Your task to perform on an android device: Open calendar and show me the fourth week of next month Image 0: 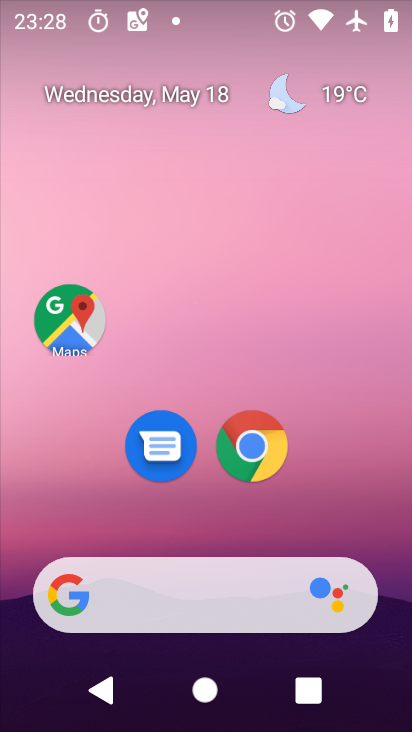
Step 0: press home button
Your task to perform on an android device: Open calendar and show me the fourth week of next month Image 1: 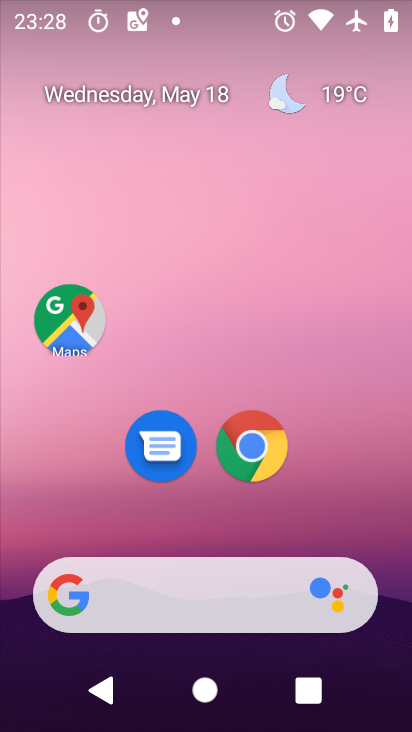
Step 1: drag from (171, 480) to (259, 184)
Your task to perform on an android device: Open calendar and show me the fourth week of next month Image 2: 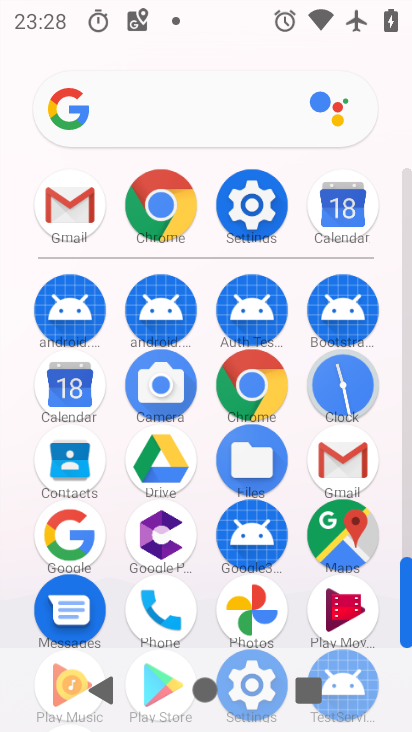
Step 2: click (332, 209)
Your task to perform on an android device: Open calendar and show me the fourth week of next month Image 3: 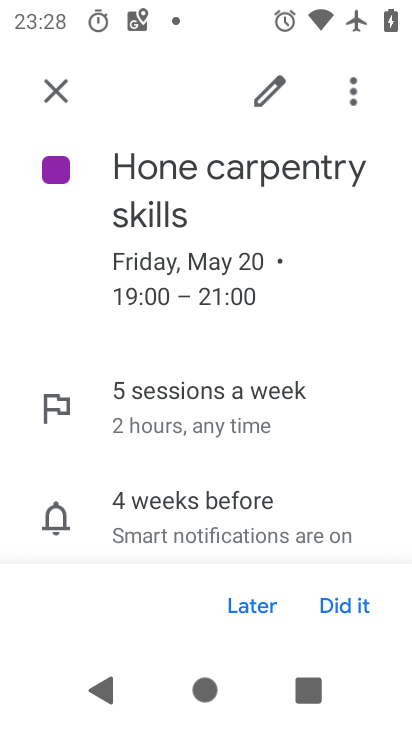
Step 3: click (62, 90)
Your task to perform on an android device: Open calendar and show me the fourth week of next month Image 4: 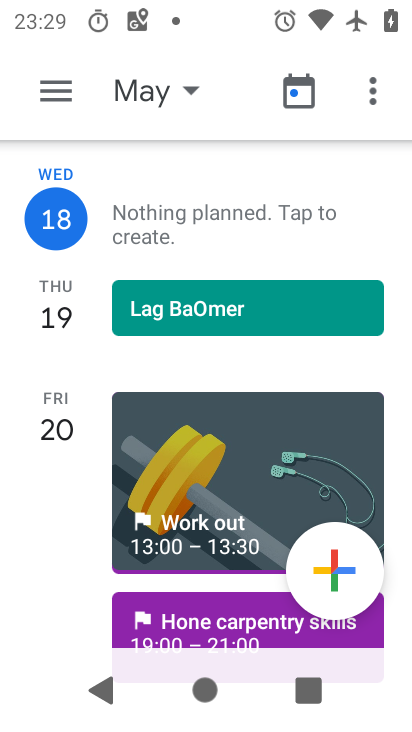
Step 4: click (127, 95)
Your task to perform on an android device: Open calendar and show me the fourth week of next month Image 5: 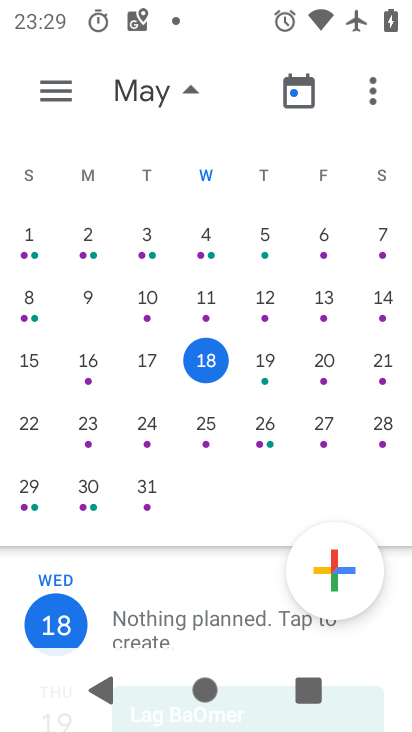
Step 5: drag from (369, 377) to (29, 346)
Your task to perform on an android device: Open calendar and show me the fourth week of next month Image 6: 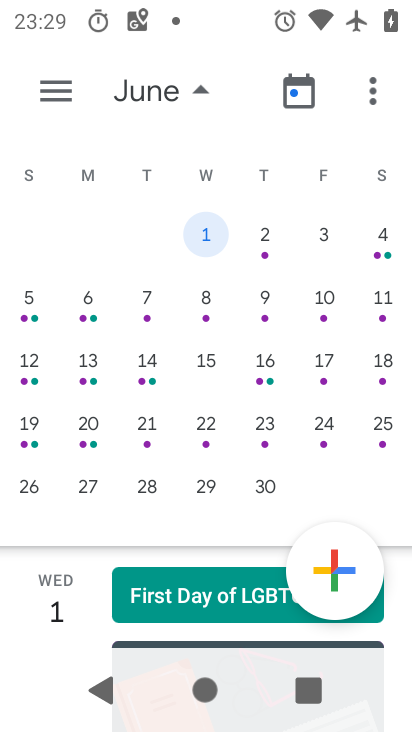
Step 6: click (29, 432)
Your task to perform on an android device: Open calendar and show me the fourth week of next month Image 7: 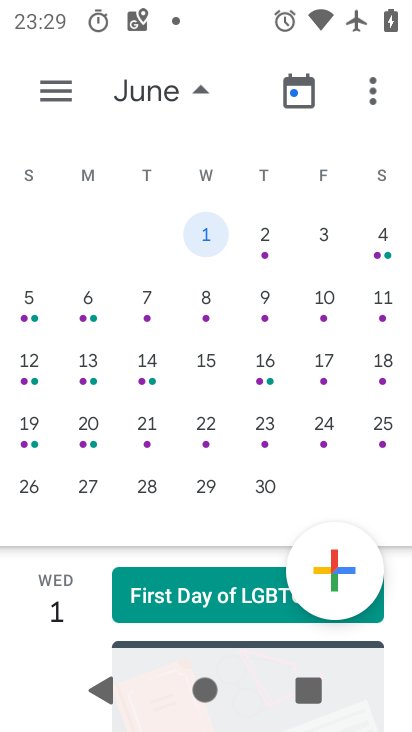
Step 7: click (40, 425)
Your task to perform on an android device: Open calendar and show me the fourth week of next month Image 8: 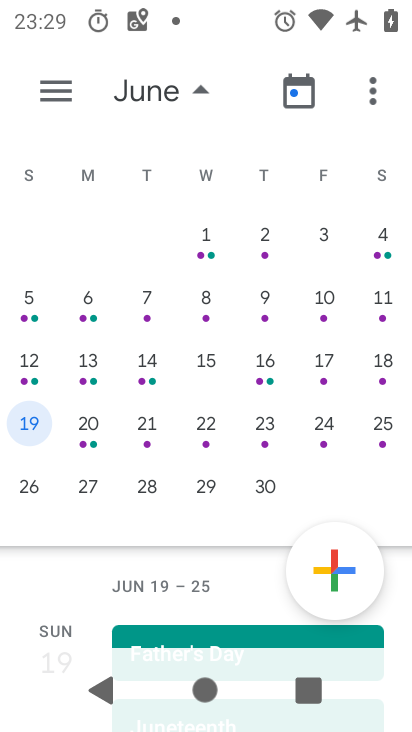
Step 8: click (62, 87)
Your task to perform on an android device: Open calendar and show me the fourth week of next month Image 9: 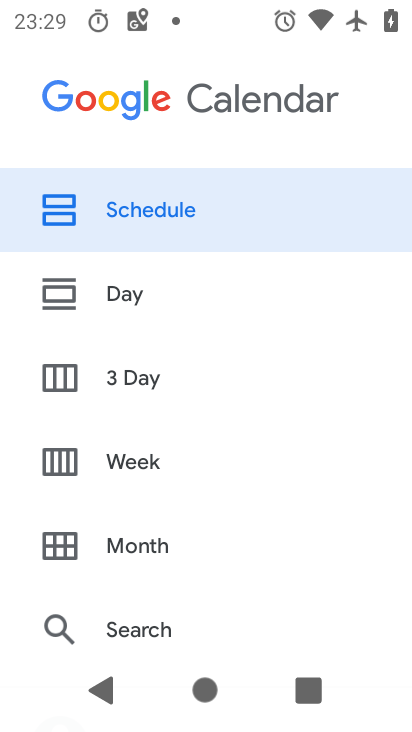
Step 9: click (131, 460)
Your task to perform on an android device: Open calendar and show me the fourth week of next month Image 10: 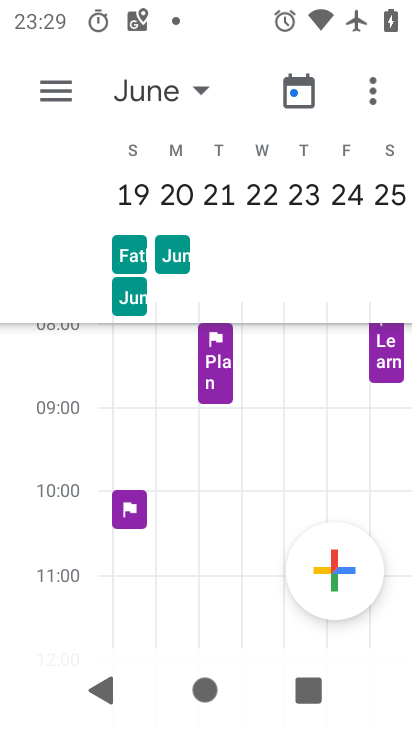
Step 10: task complete